Your task to perform on an android device: Go to Yahoo.com Image 0: 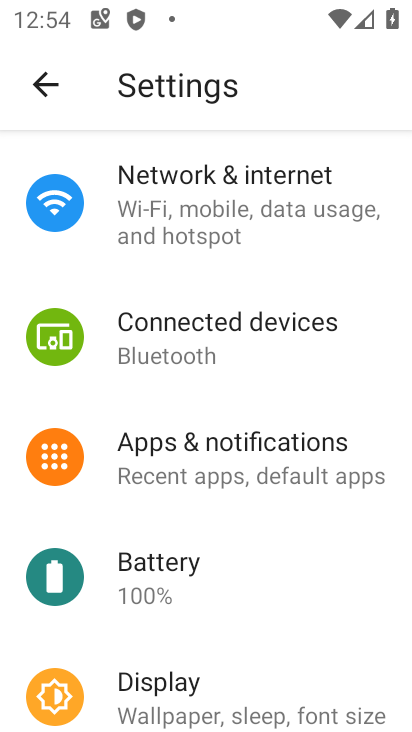
Step 0: press home button
Your task to perform on an android device: Go to Yahoo.com Image 1: 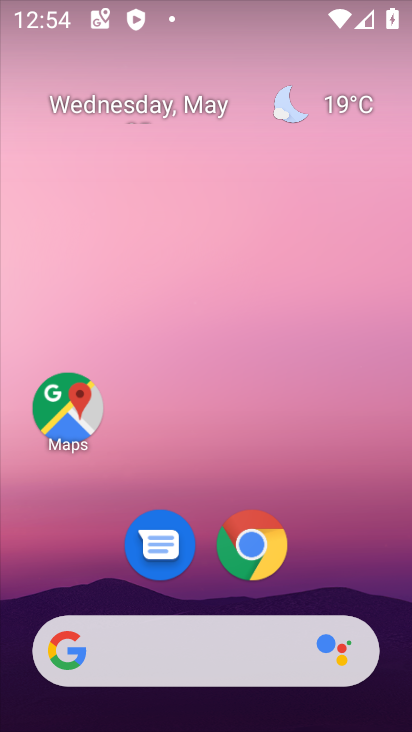
Step 1: click (152, 664)
Your task to perform on an android device: Go to Yahoo.com Image 2: 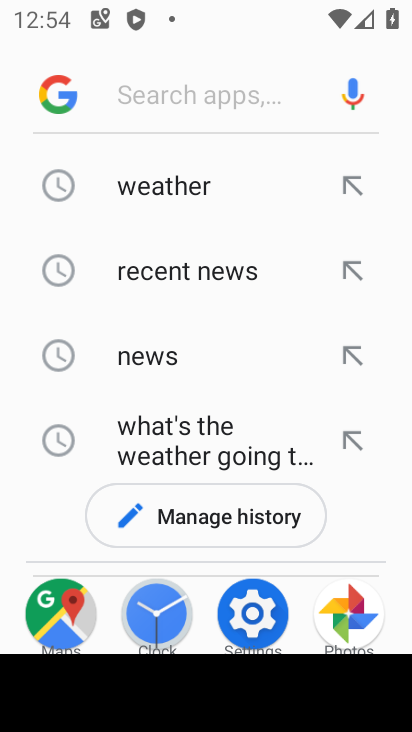
Step 2: press home button
Your task to perform on an android device: Go to Yahoo.com Image 3: 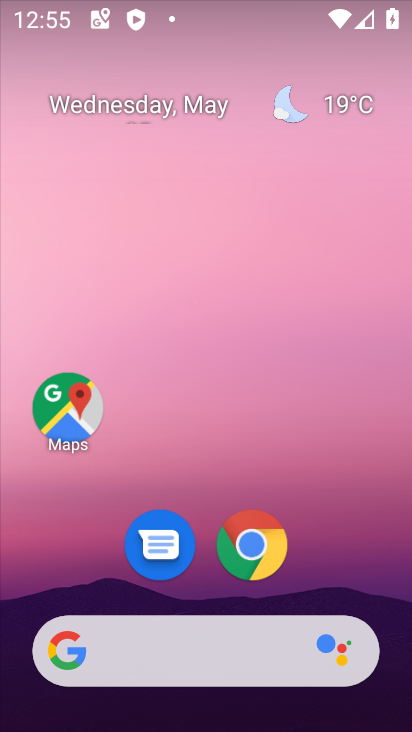
Step 3: click (239, 551)
Your task to perform on an android device: Go to Yahoo.com Image 4: 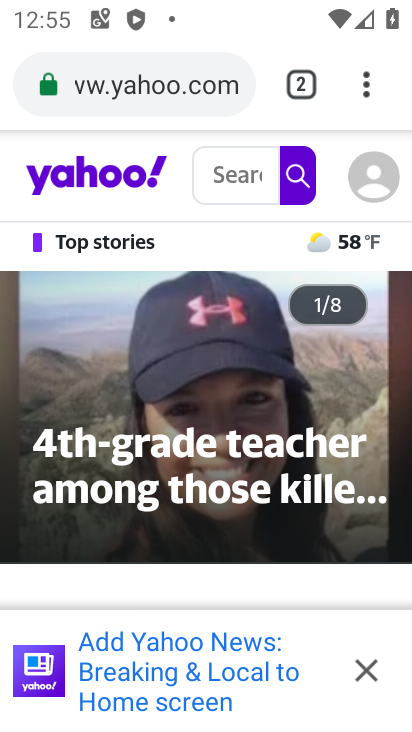
Step 4: task complete